Your task to perform on an android device: Show me popular games on the Play Store Image 0: 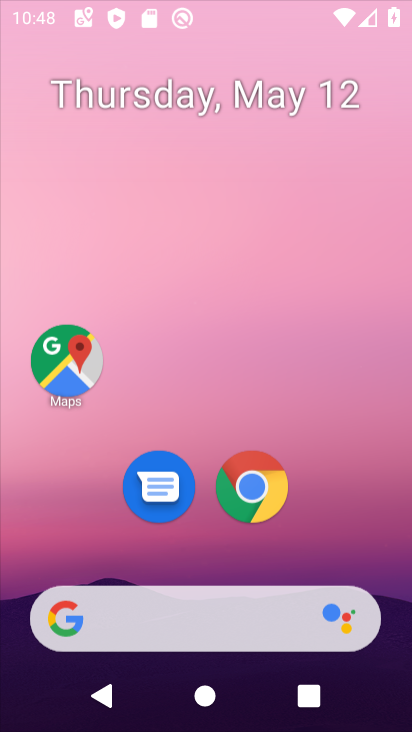
Step 0: drag from (57, 501) to (293, 74)
Your task to perform on an android device: Show me popular games on the Play Store Image 1: 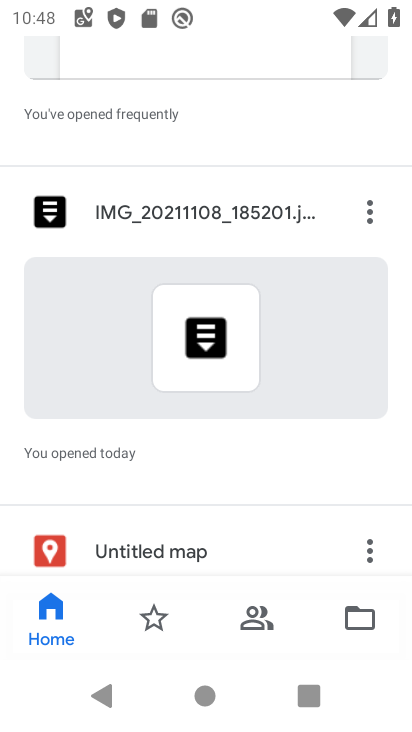
Step 1: press home button
Your task to perform on an android device: Show me popular games on the Play Store Image 2: 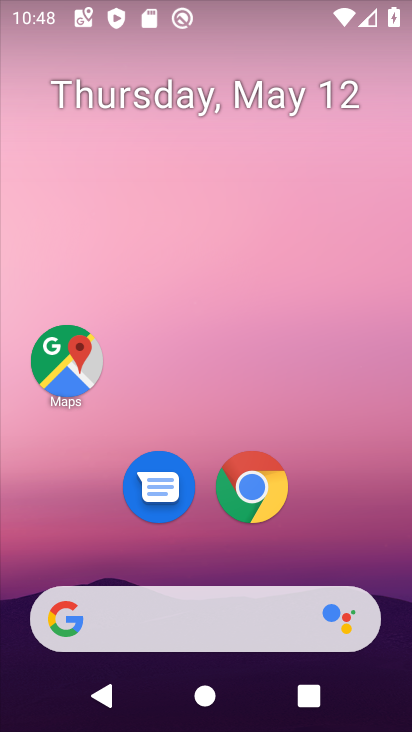
Step 2: drag from (95, 442) to (214, 238)
Your task to perform on an android device: Show me popular games on the Play Store Image 3: 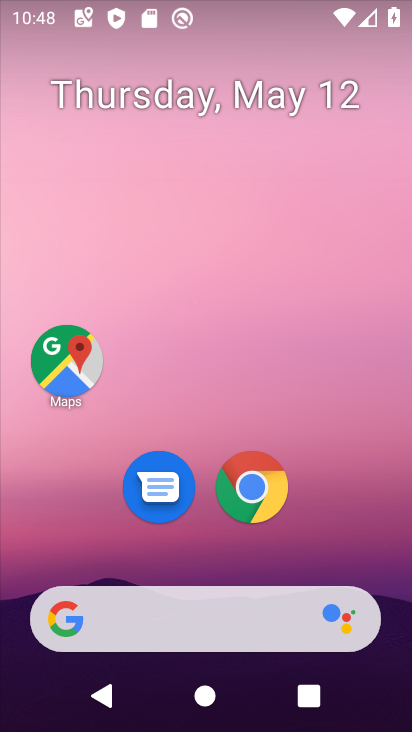
Step 3: drag from (80, 574) to (293, 282)
Your task to perform on an android device: Show me popular games on the Play Store Image 4: 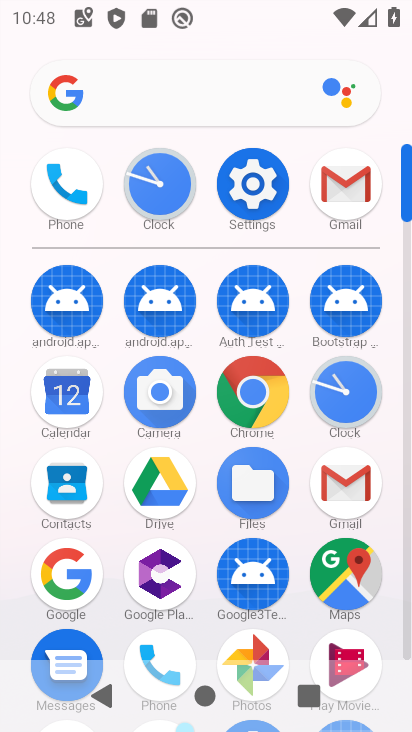
Step 4: drag from (23, 637) to (316, 215)
Your task to perform on an android device: Show me popular games on the Play Store Image 5: 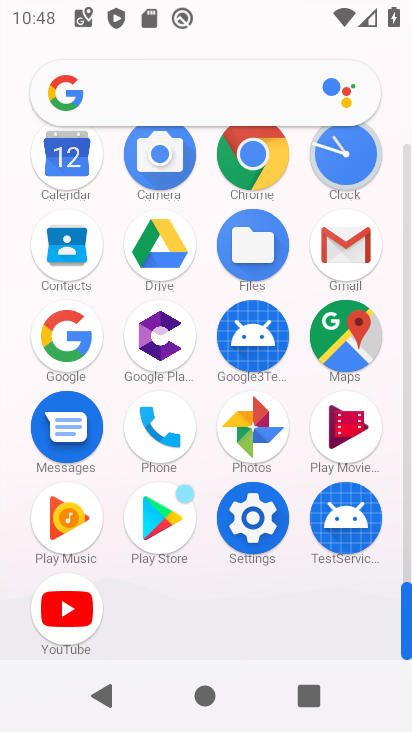
Step 5: click (183, 518)
Your task to perform on an android device: Show me popular games on the Play Store Image 6: 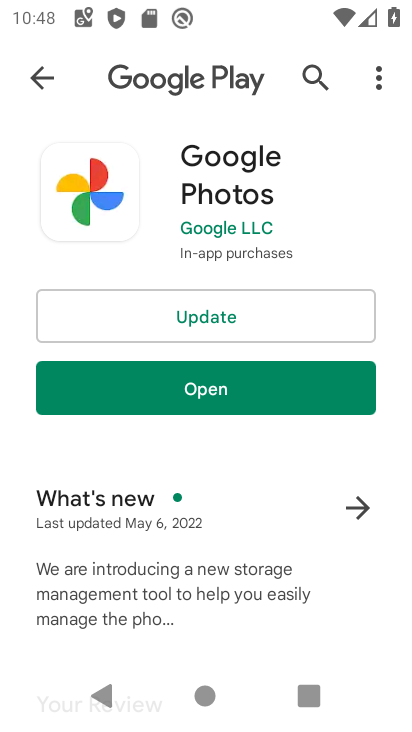
Step 6: click (270, 398)
Your task to perform on an android device: Show me popular games on the Play Store Image 7: 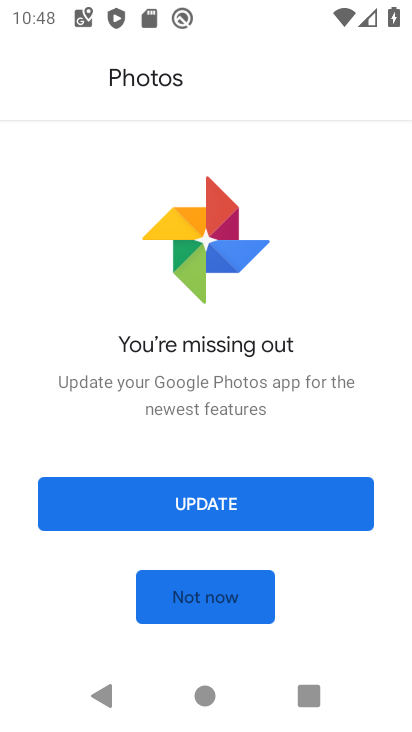
Step 7: task complete